Your task to perform on an android device: Show me productivity apps on the Play Store Image 0: 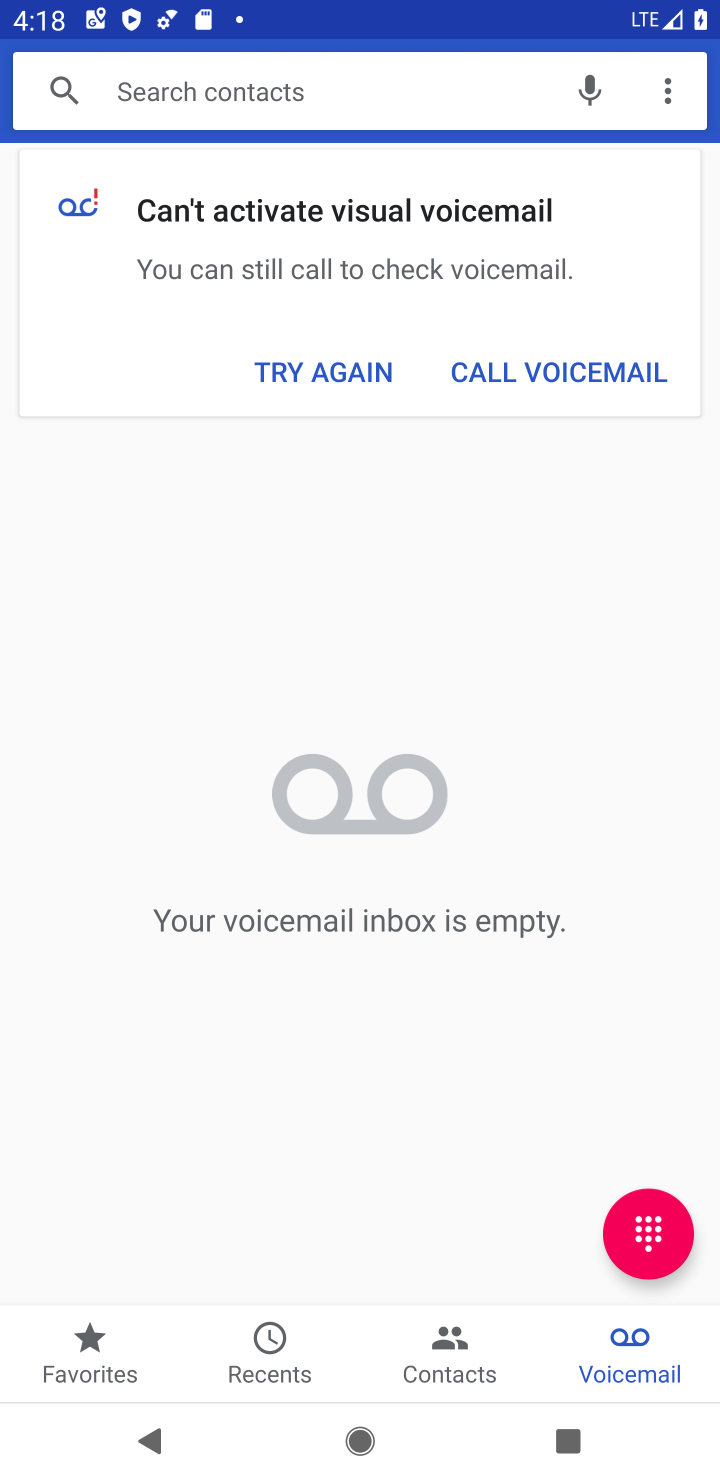
Step 0: press home button
Your task to perform on an android device: Show me productivity apps on the Play Store Image 1: 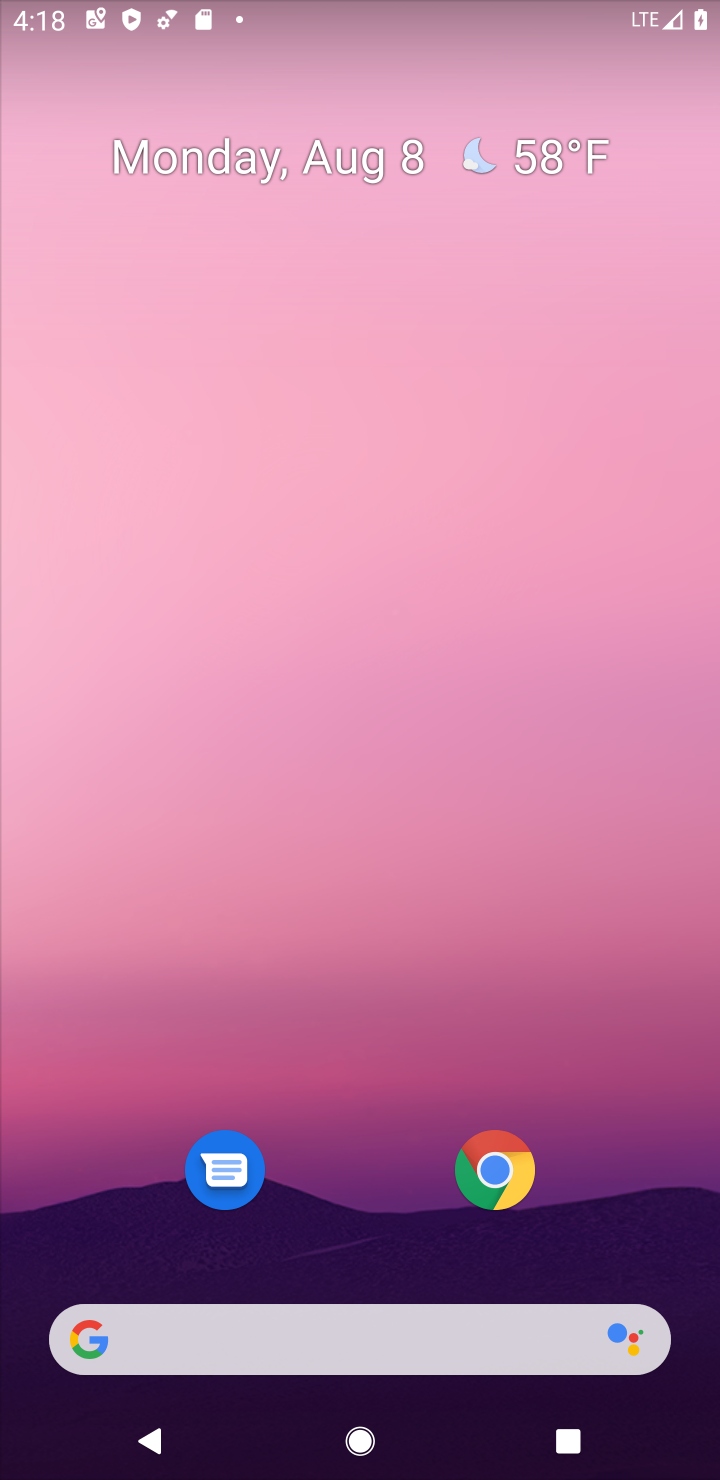
Step 1: drag from (357, 1024) to (357, 361)
Your task to perform on an android device: Show me productivity apps on the Play Store Image 2: 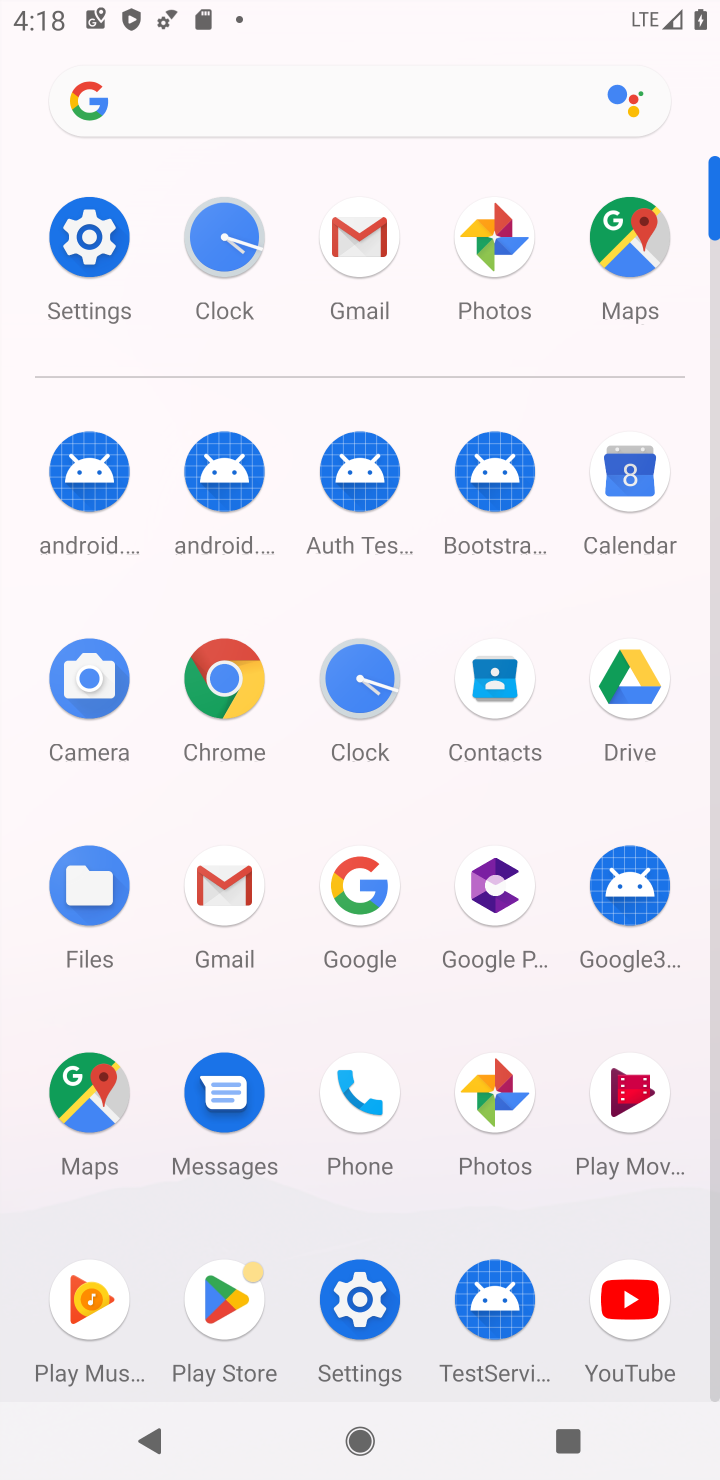
Step 2: click (233, 1307)
Your task to perform on an android device: Show me productivity apps on the Play Store Image 3: 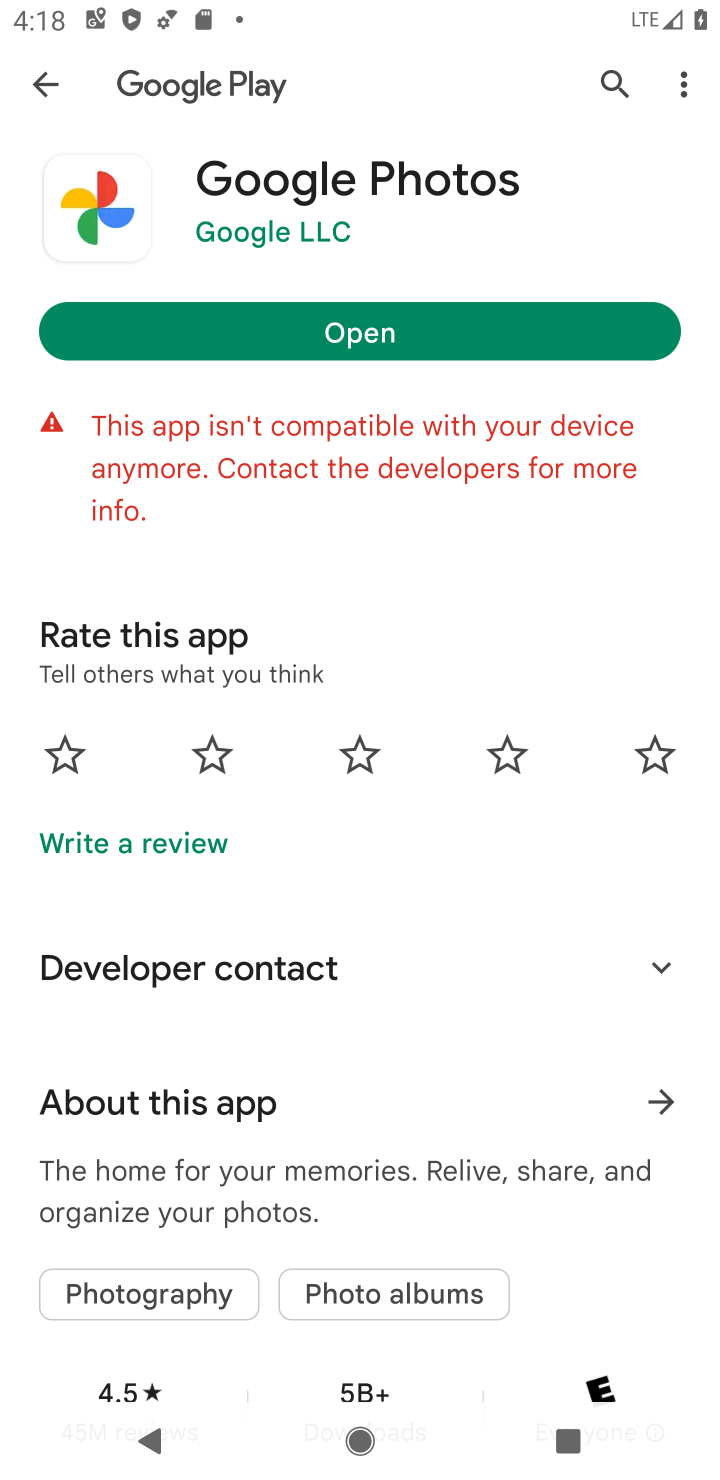
Step 3: click (37, 89)
Your task to perform on an android device: Show me productivity apps on the Play Store Image 4: 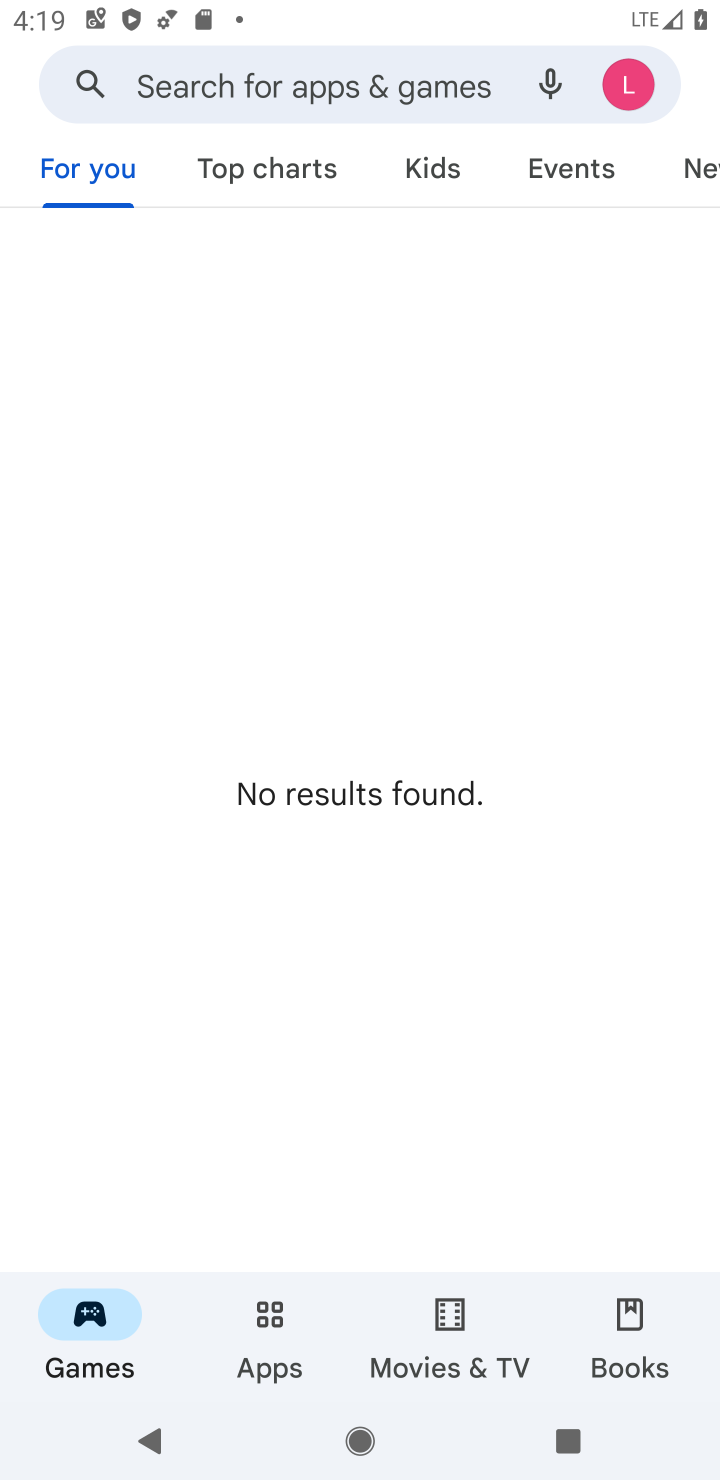
Step 4: click (257, 1347)
Your task to perform on an android device: Show me productivity apps on the Play Store Image 5: 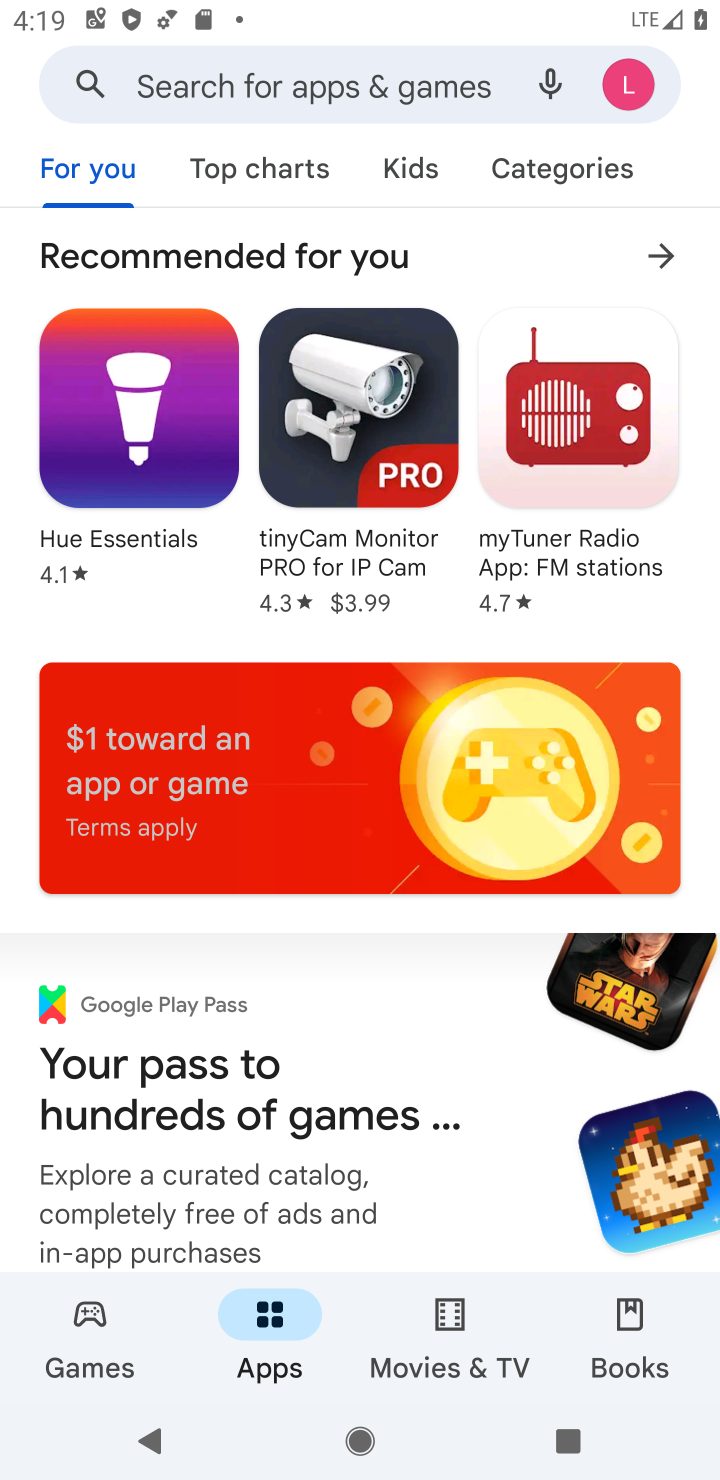
Step 5: click (551, 186)
Your task to perform on an android device: Show me productivity apps on the Play Store Image 6: 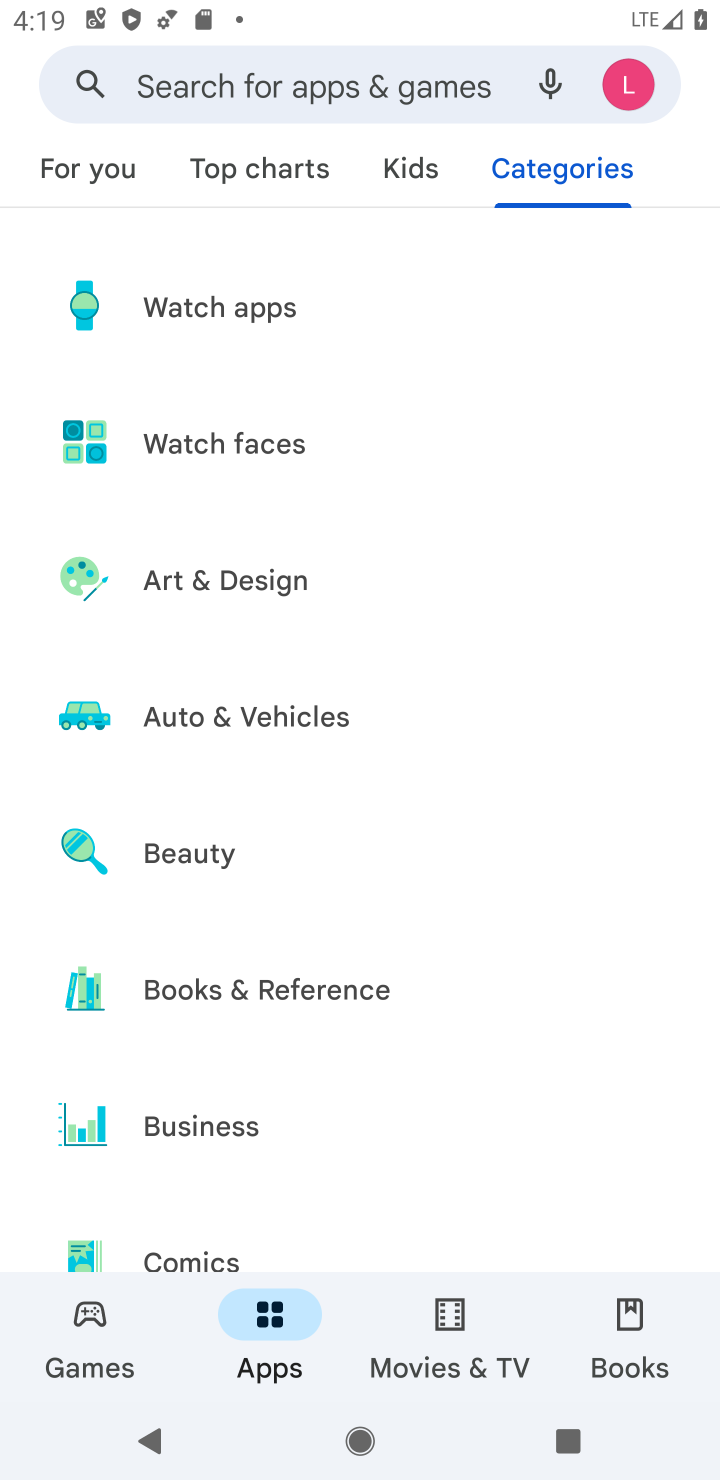
Step 6: drag from (388, 988) to (399, 481)
Your task to perform on an android device: Show me productivity apps on the Play Store Image 7: 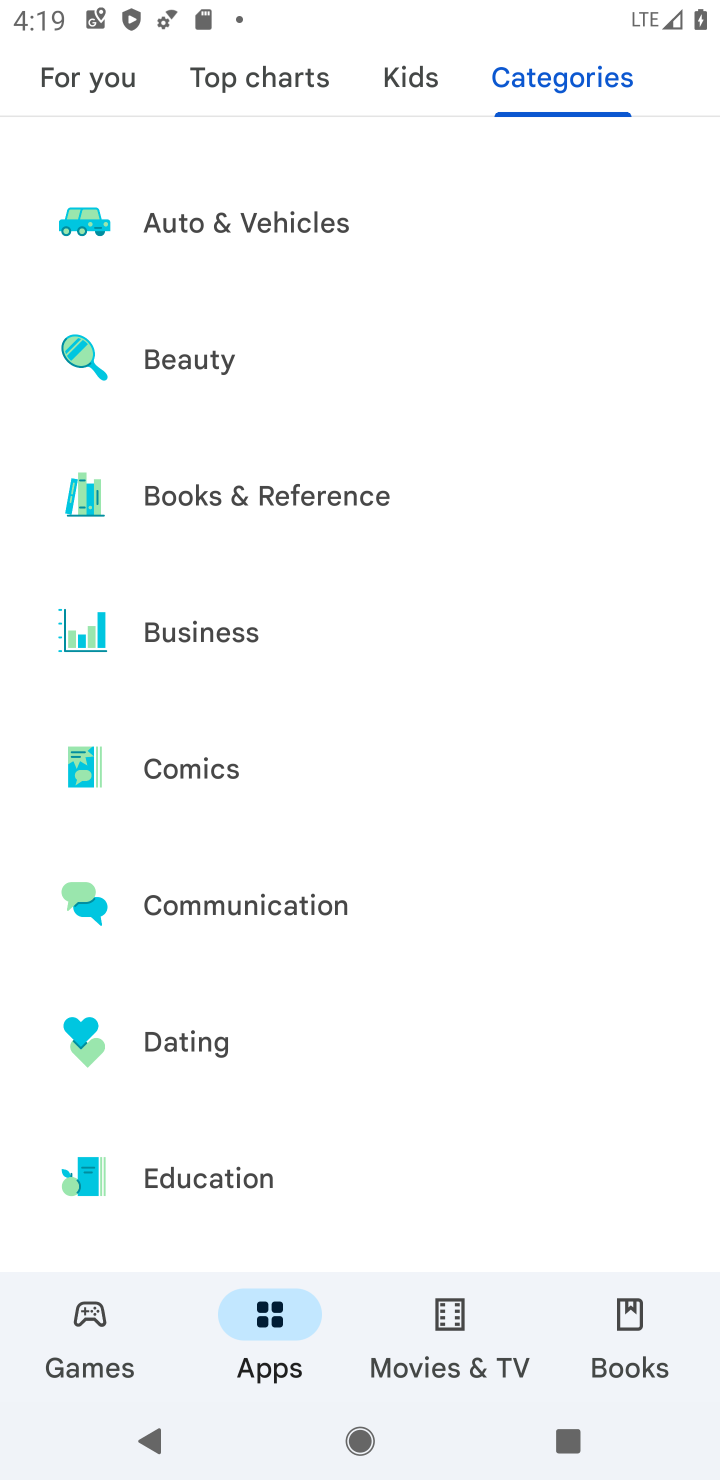
Step 7: drag from (307, 1056) to (376, 502)
Your task to perform on an android device: Show me productivity apps on the Play Store Image 8: 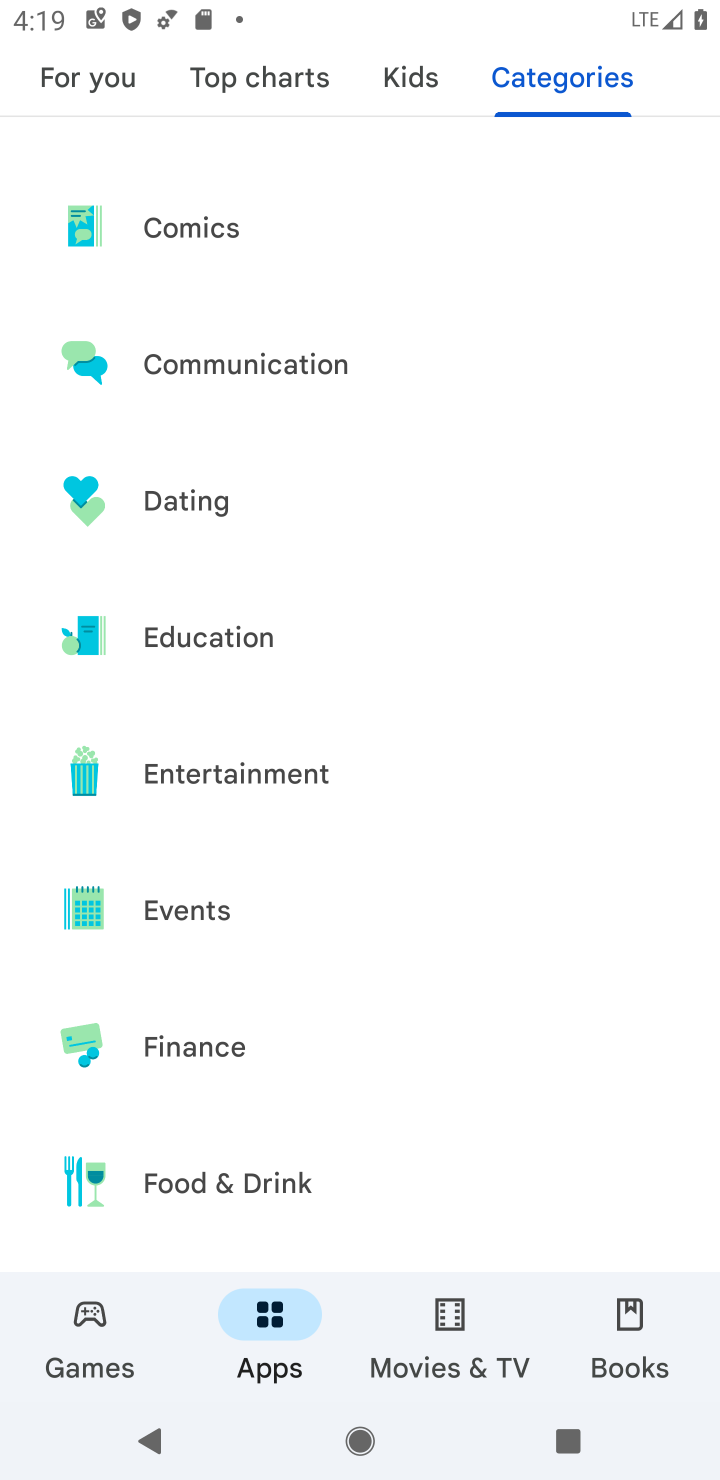
Step 8: drag from (358, 826) to (361, 473)
Your task to perform on an android device: Show me productivity apps on the Play Store Image 9: 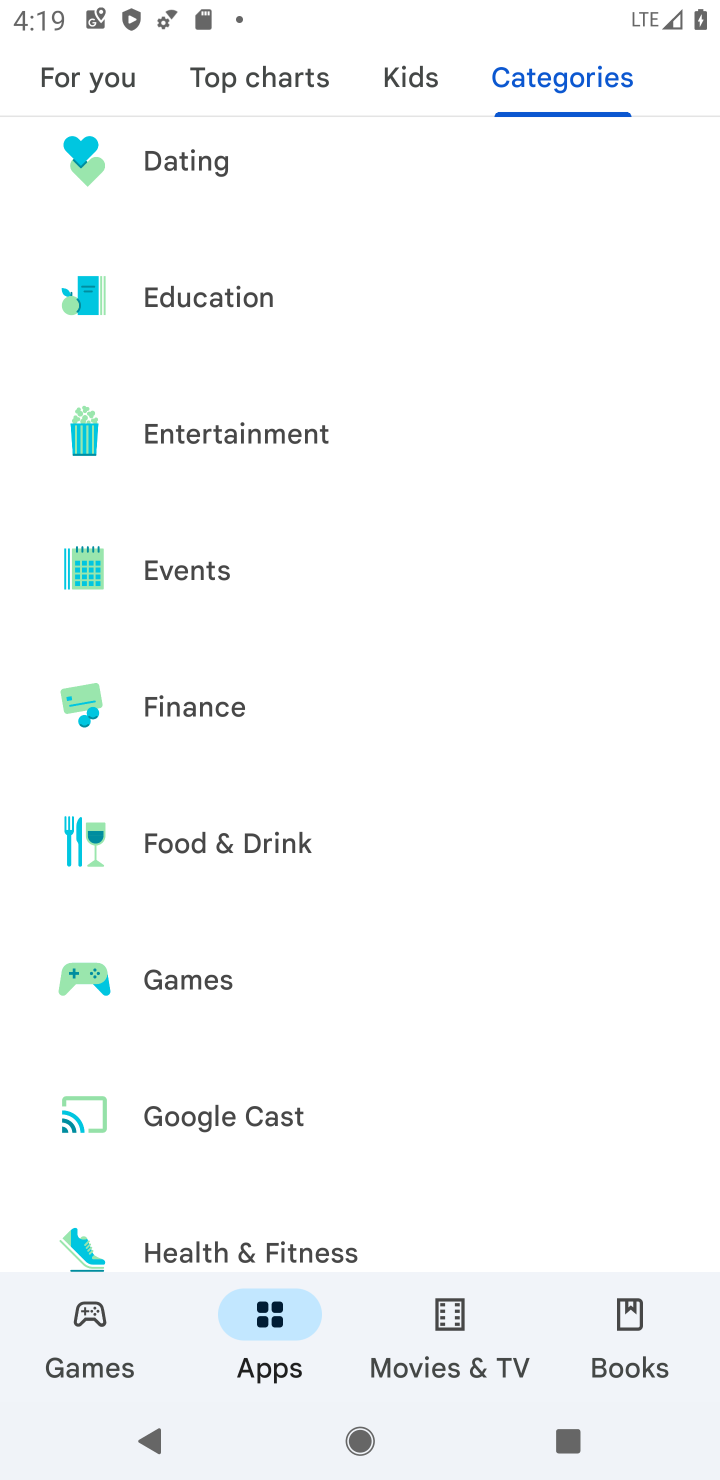
Step 9: drag from (326, 1052) to (330, 425)
Your task to perform on an android device: Show me productivity apps on the Play Store Image 10: 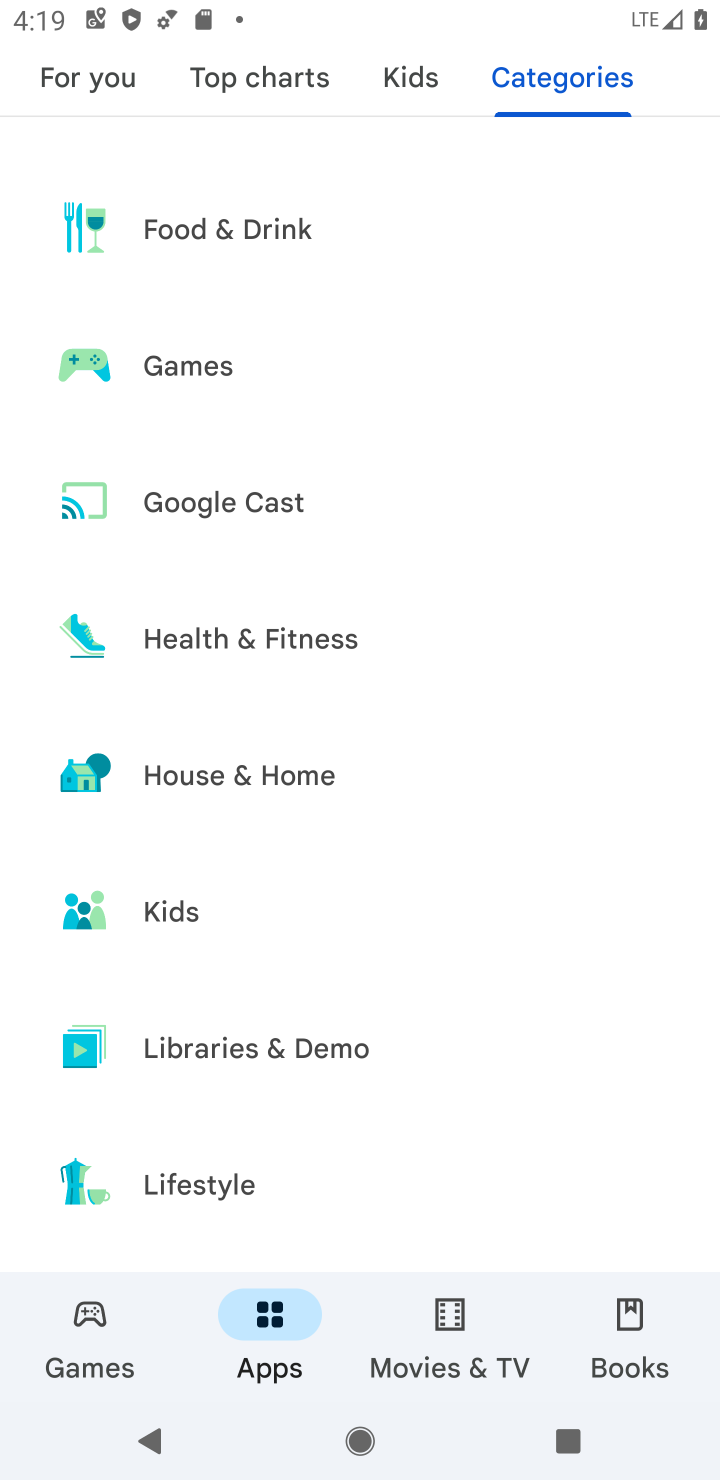
Step 10: drag from (345, 1107) to (380, 492)
Your task to perform on an android device: Show me productivity apps on the Play Store Image 11: 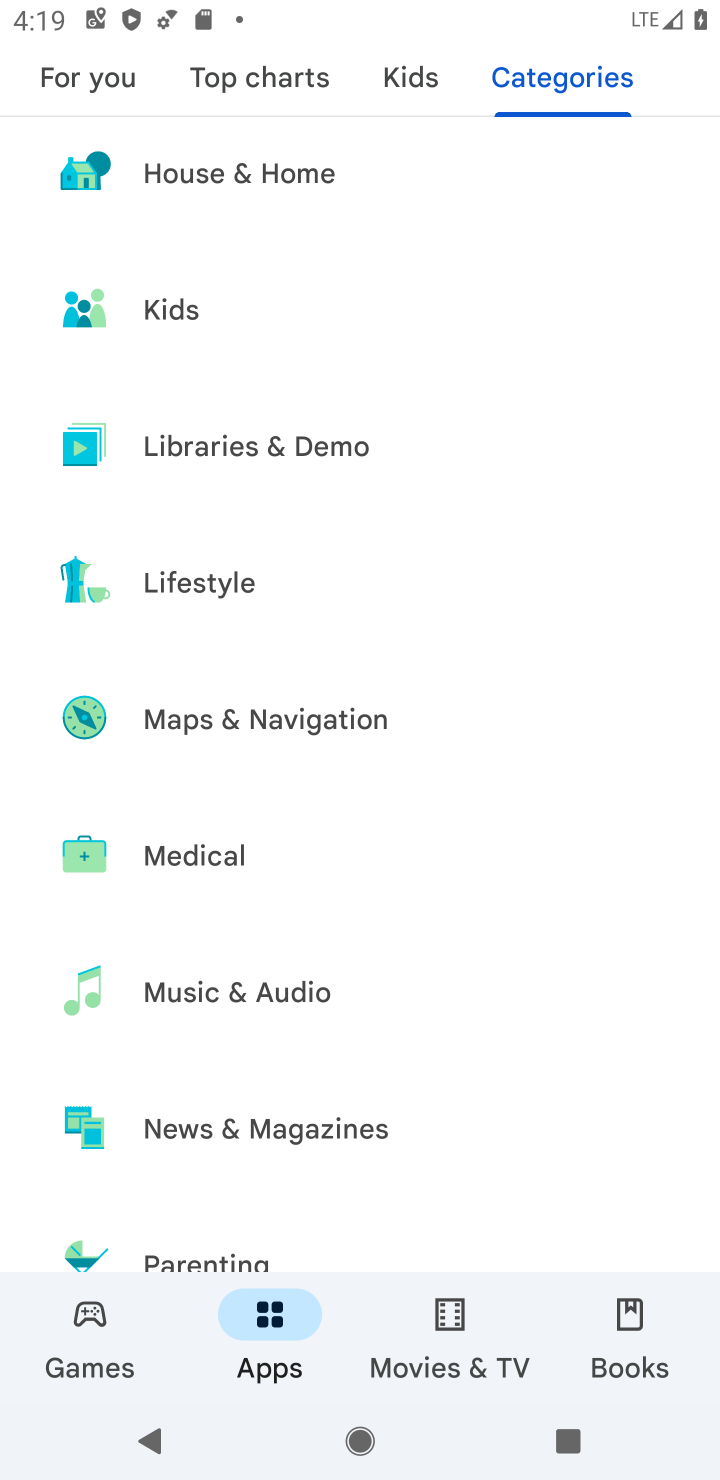
Step 11: drag from (334, 1092) to (343, 475)
Your task to perform on an android device: Show me productivity apps on the Play Store Image 12: 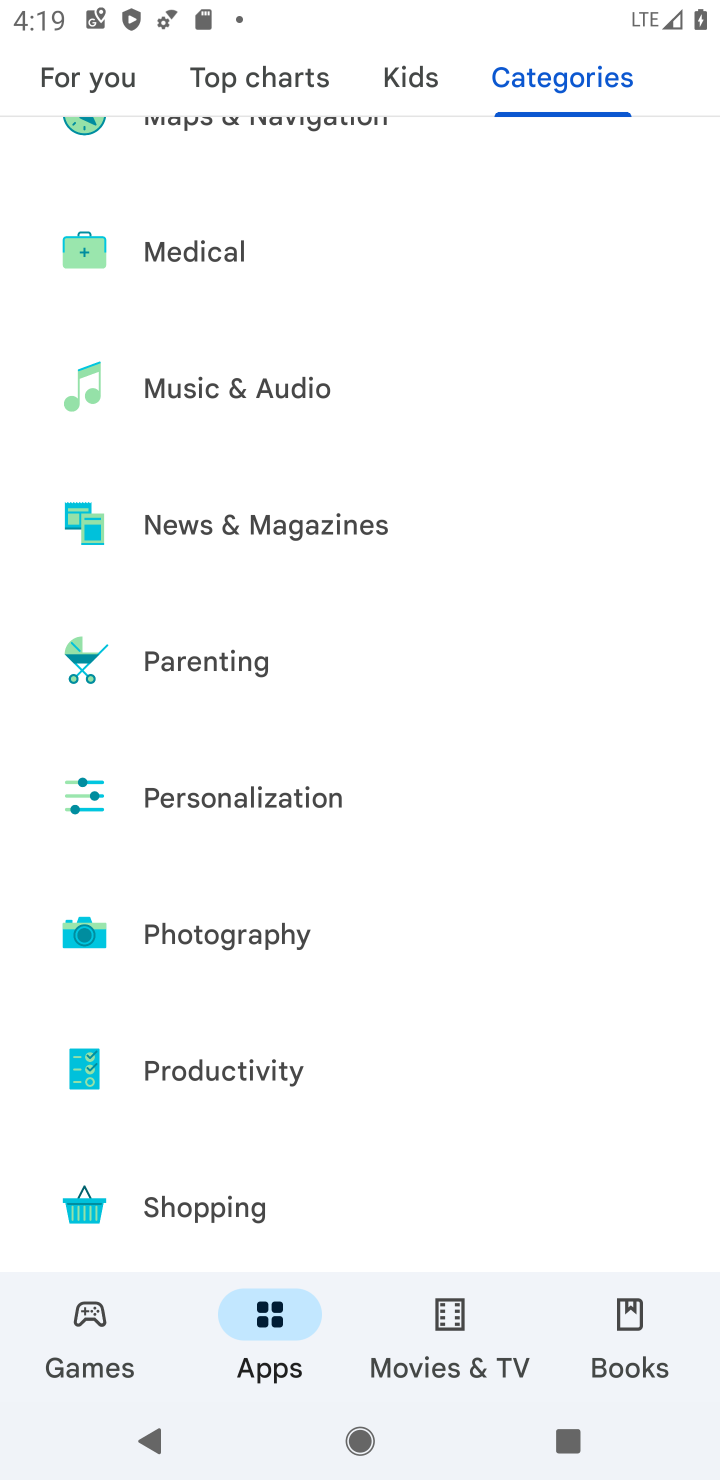
Step 12: drag from (311, 1122) to (303, 523)
Your task to perform on an android device: Show me productivity apps on the Play Store Image 13: 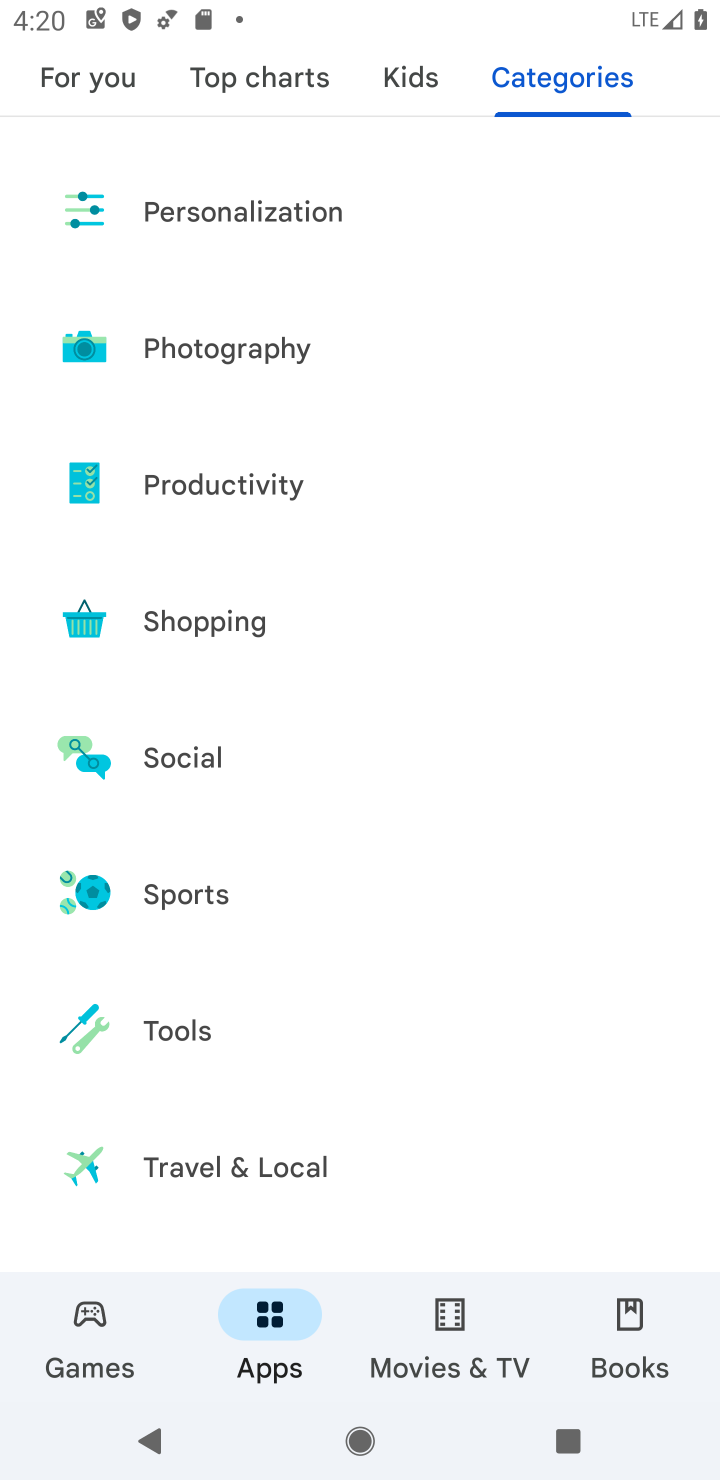
Step 13: drag from (321, 935) to (301, 866)
Your task to perform on an android device: Show me productivity apps on the Play Store Image 14: 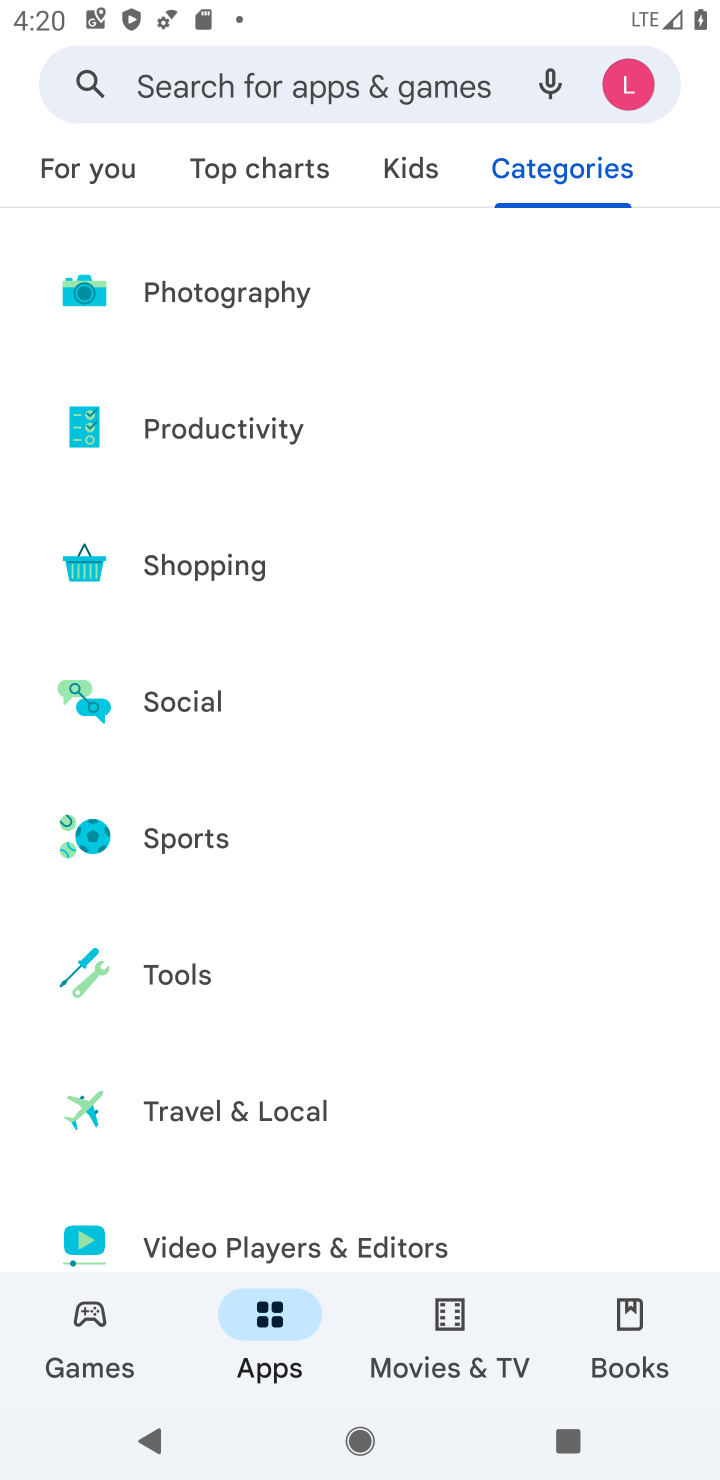
Step 14: click (220, 455)
Your task to perform on an android device: Show me productivity apps on the Play Store Image 15: 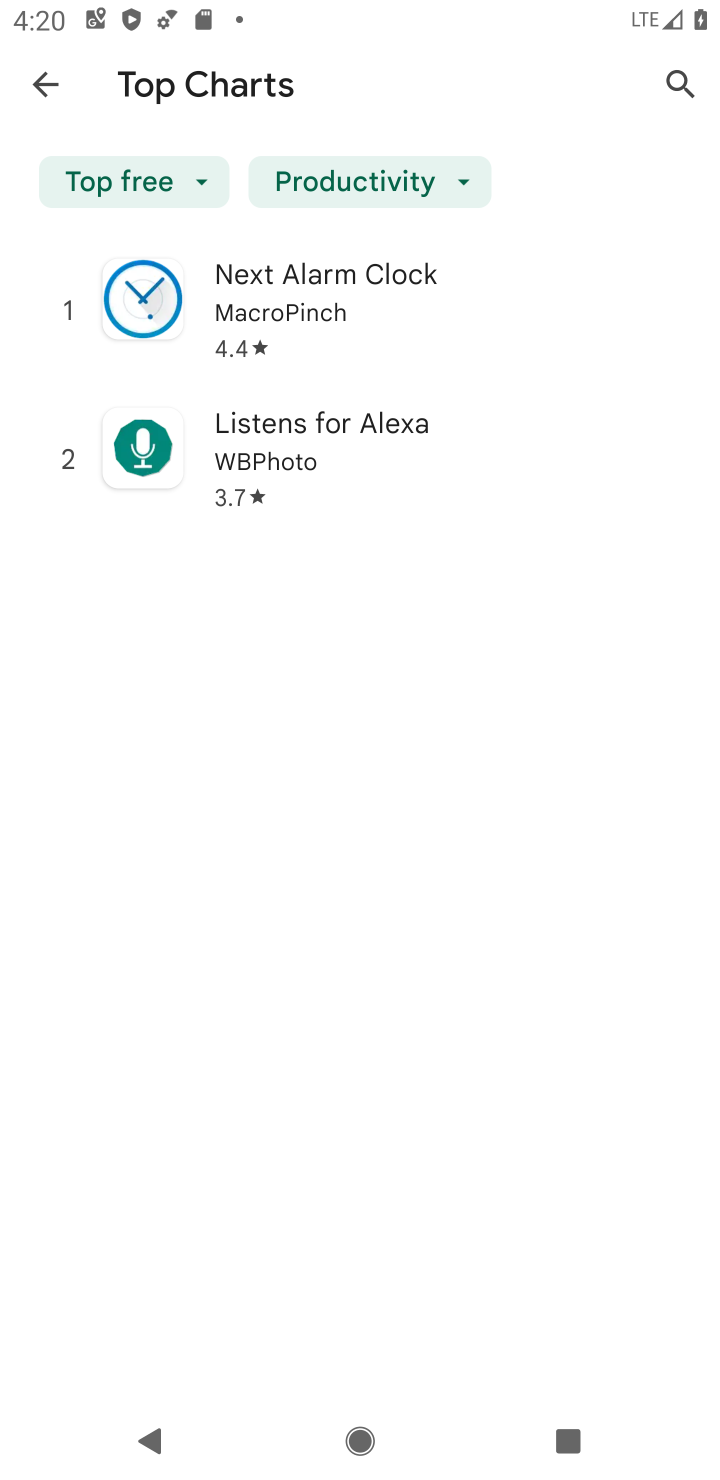
Step 15: task complete